Your task to perform on an android device: turn off picture-in-picture Image 0: 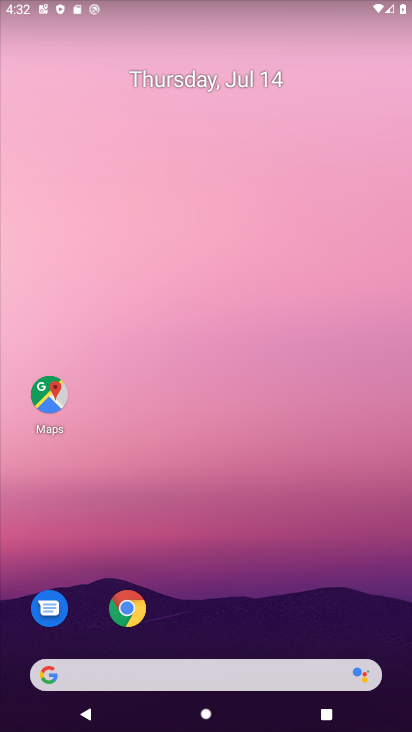
Step 0: click (127, 607)
Your task to perform on an android device: turn off picture-in-picture Image 1: 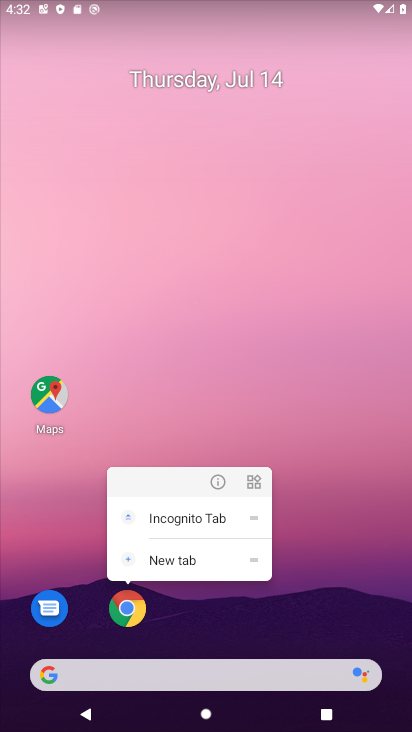
Step 1: click (209, 481)
Your task to perform on an android device: turn off picture-in-picture Image 2: 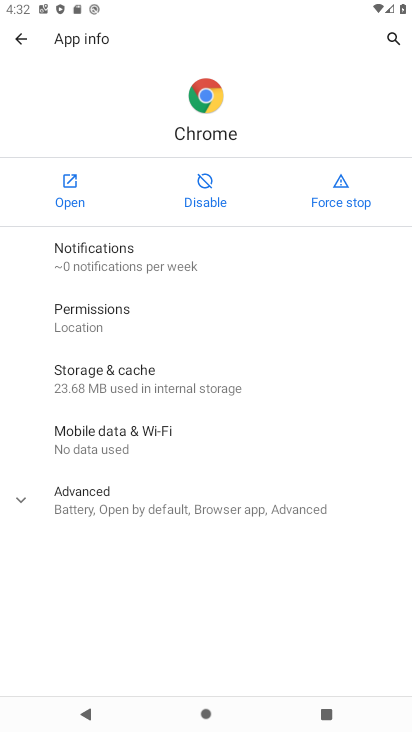
Step 2: click (144, 503)
Your task to perform on an android device: turn off picture-in-picture Image 3: 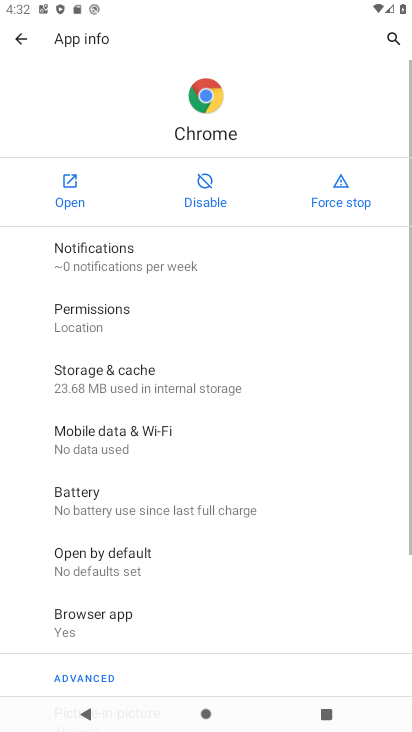
Step 3: drag from (169, 538) to (183, 373)
Your task to perform on an android device: turn off picture-in-picture Image 4: 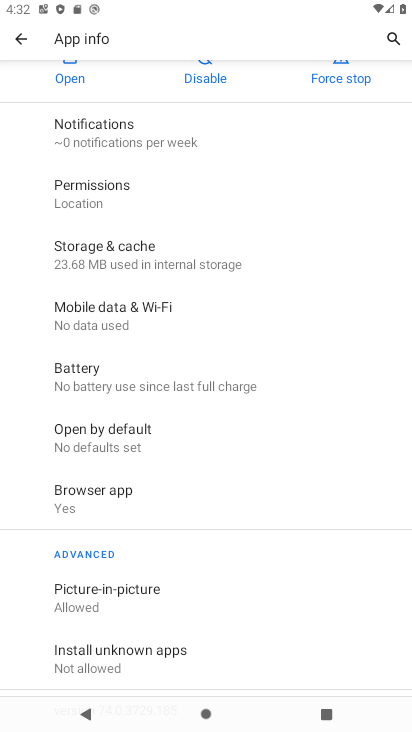
Step 4: drag from (145, 608) to (166, 352)
Your task to perform on an android device: turn off picture-in-picture Image 5: 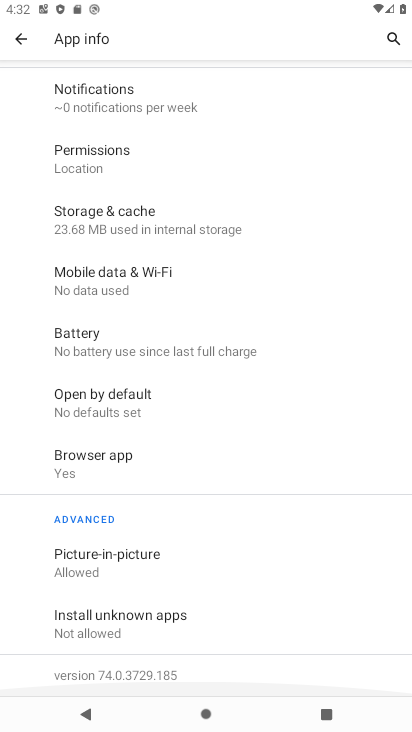
Step 5: click (111, 556)
Your task to perform on an android device: turn off picture-in-picture Image 6: 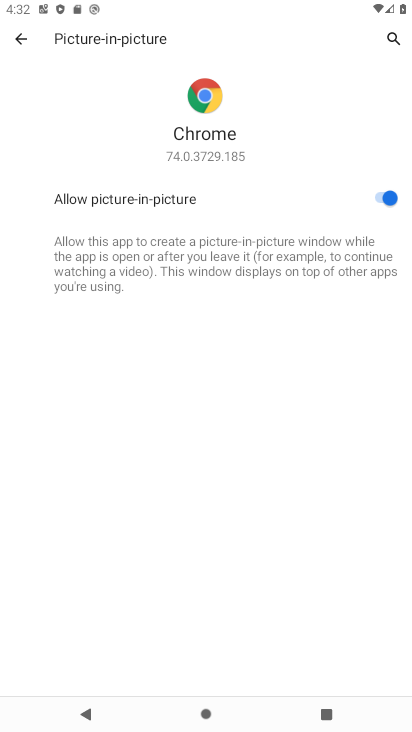
Step 6: click (375, 199)
Your task to perform on an android device: turn off picture-in-picture Image 7: 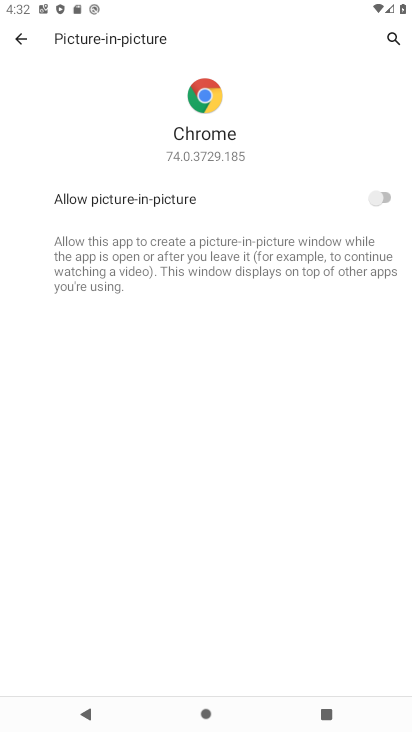
Step 7: task complete